Your task to perform on an android device: Go to privacy settings Image 0: 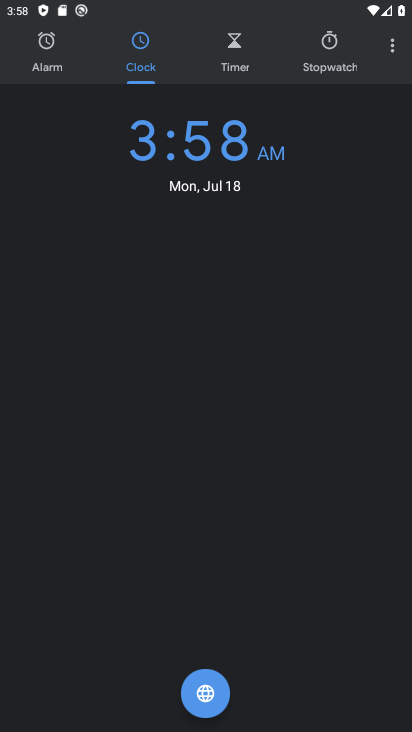
Step 0: press home button
Your task to perform on an android device: Go to privacy settings Image 1: 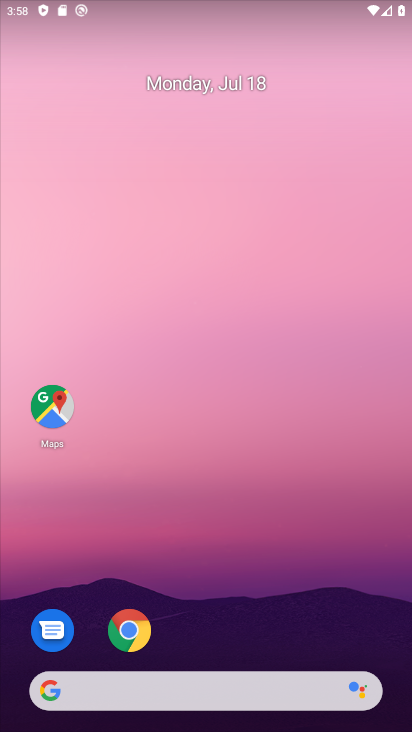
Step 1: drag from (263, 616) to (242, 219)
Your task to perform on an android device: Go to privacy settings Image 2: 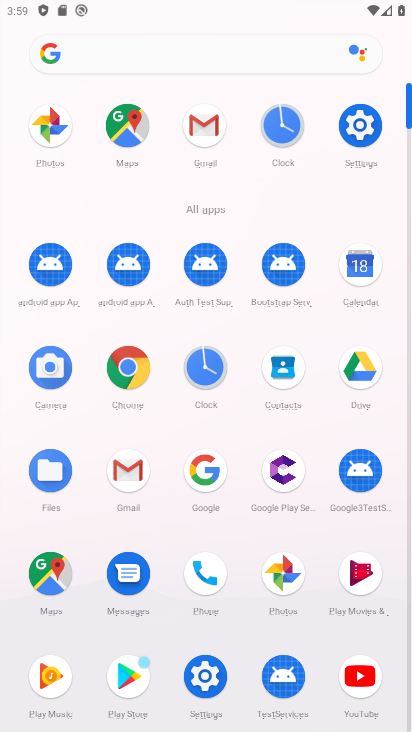
Step 2: click (360, 139)
Your task to perform on an android device: Go to privacy settings Image 3: 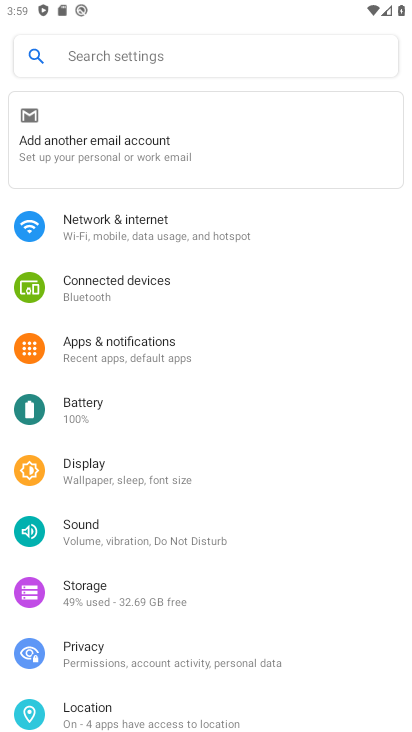
Step 3: click (267, 648)
Your task to perform on an android device: Go to privacy settings Image 4: 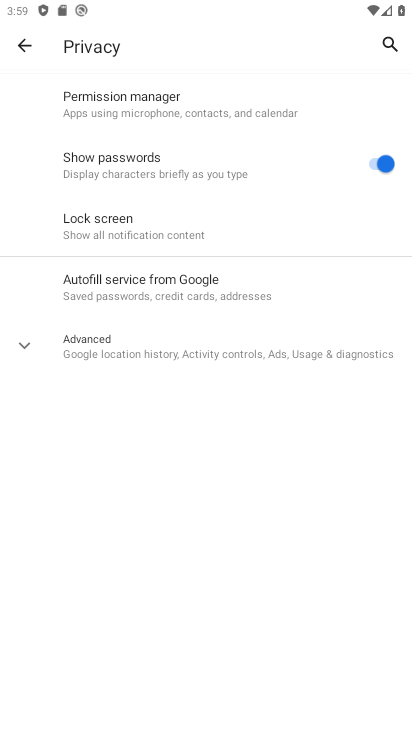
Step 4: task complete